Your task to perform on an android device: Go to ESPN.com Image 0: 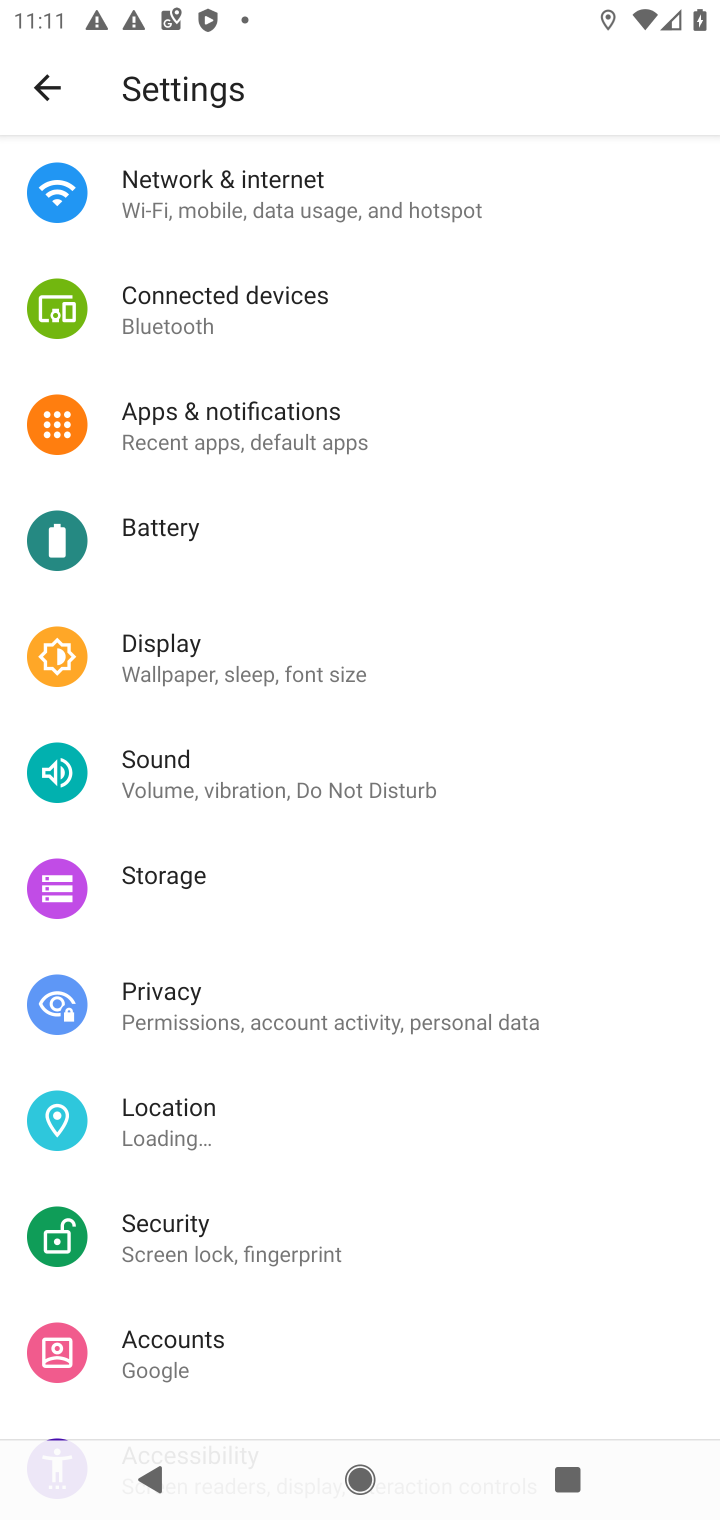
Step 0: press home button
Your task to perform on an android device: Go to ESPN.com Image 1: 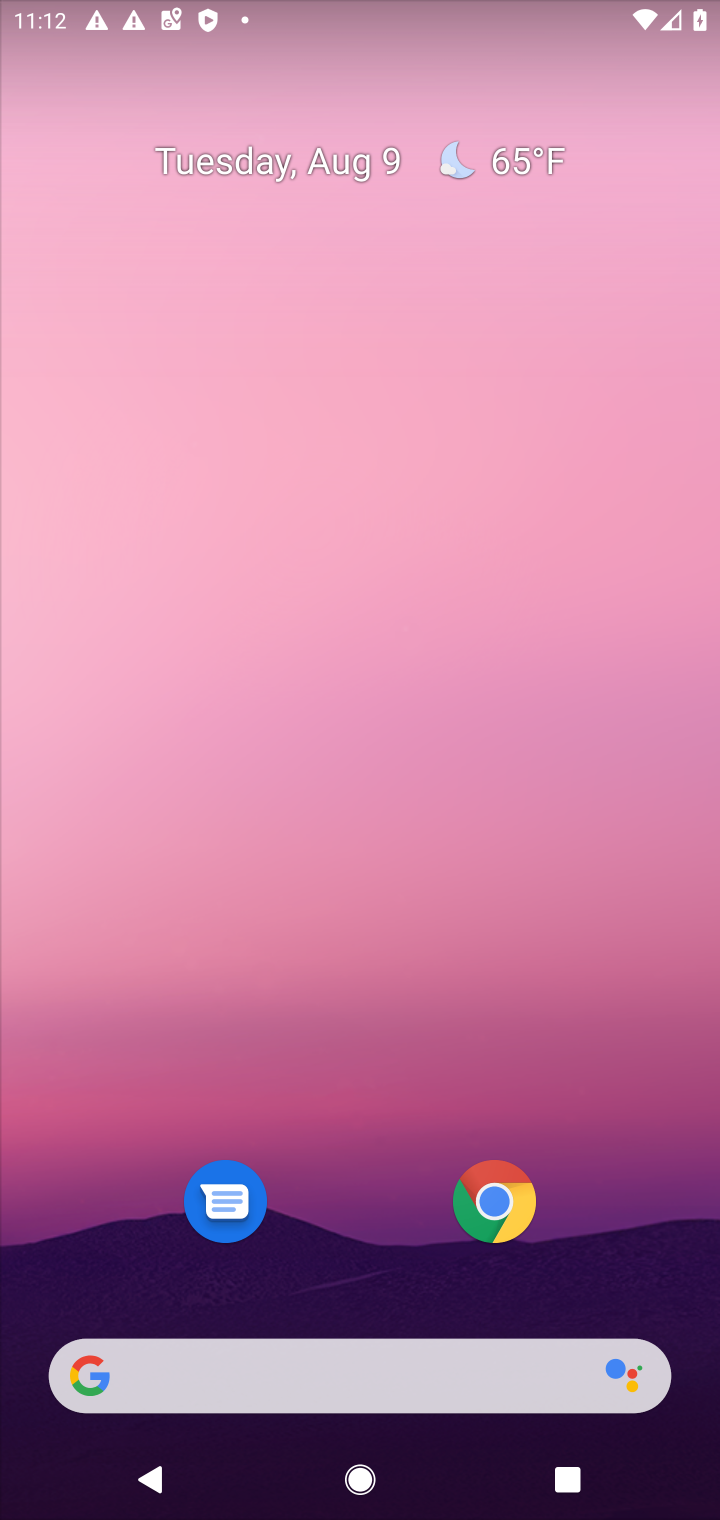
Step 1: drag from (350, 466) to (613, 16)
Your task to perform on an android device: Go to ESPN.com Image 2: 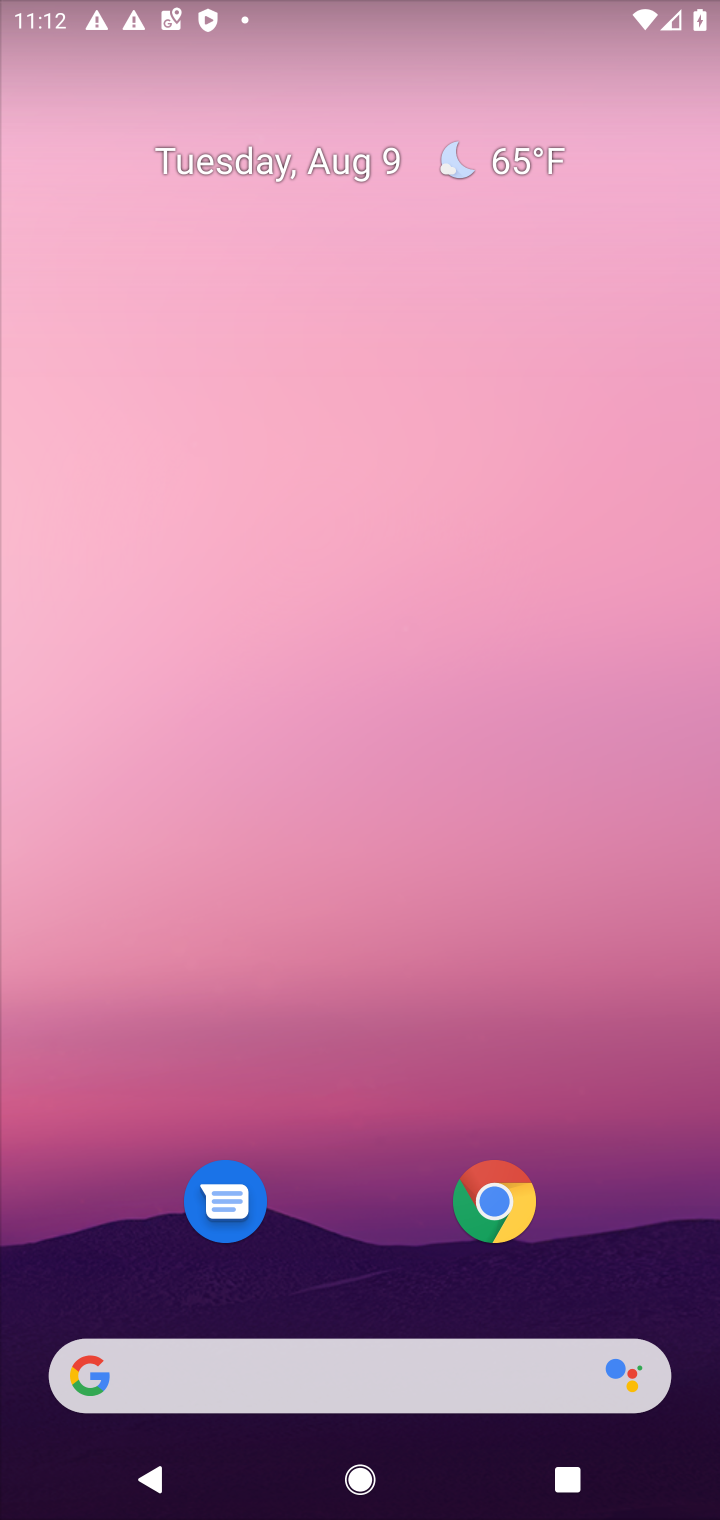
Step 2: drag from (371, 1204) to (360, 39)
Your task to perform on an android device: Go to ESPN.com Image 3: 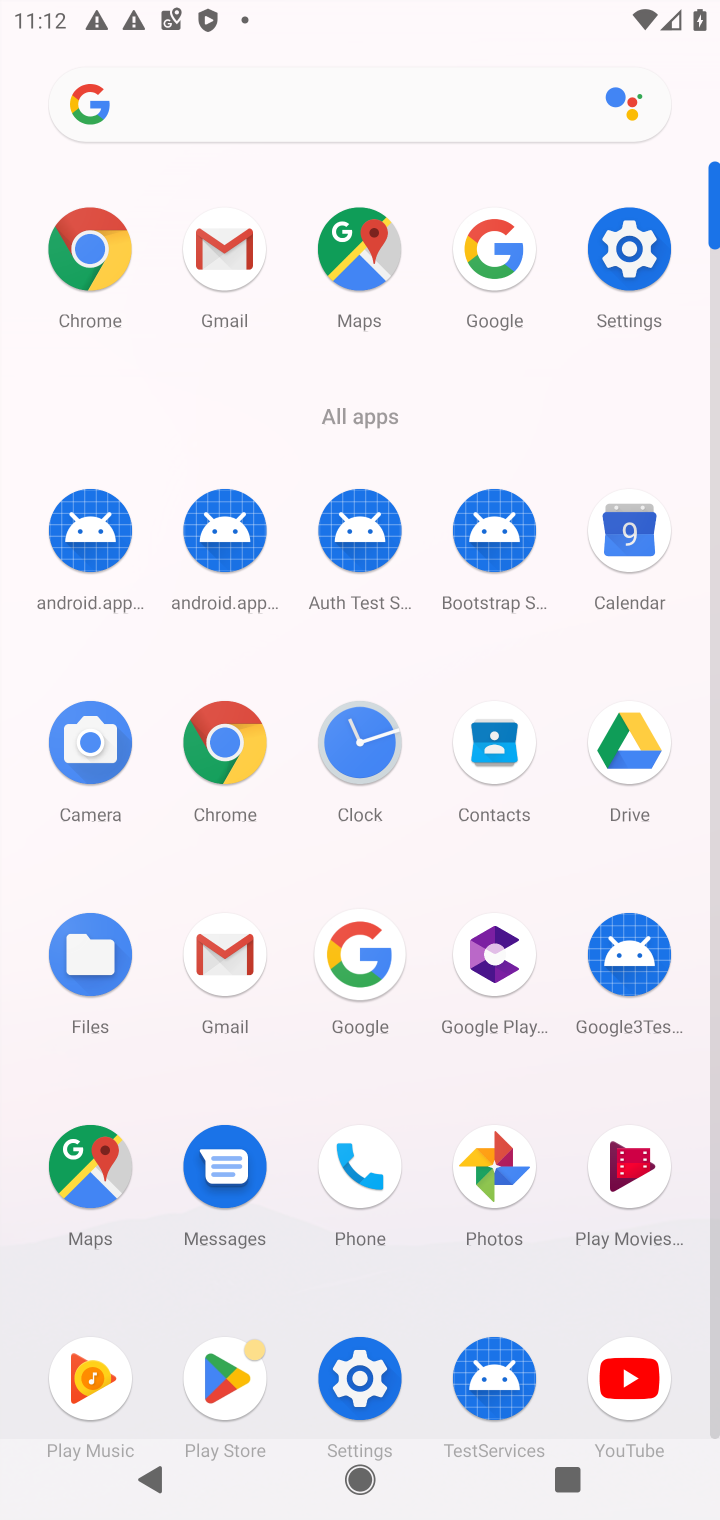
Step 3: click (371, 949)
Your task to perform on an android device: Go to ESPN.com Image 4: 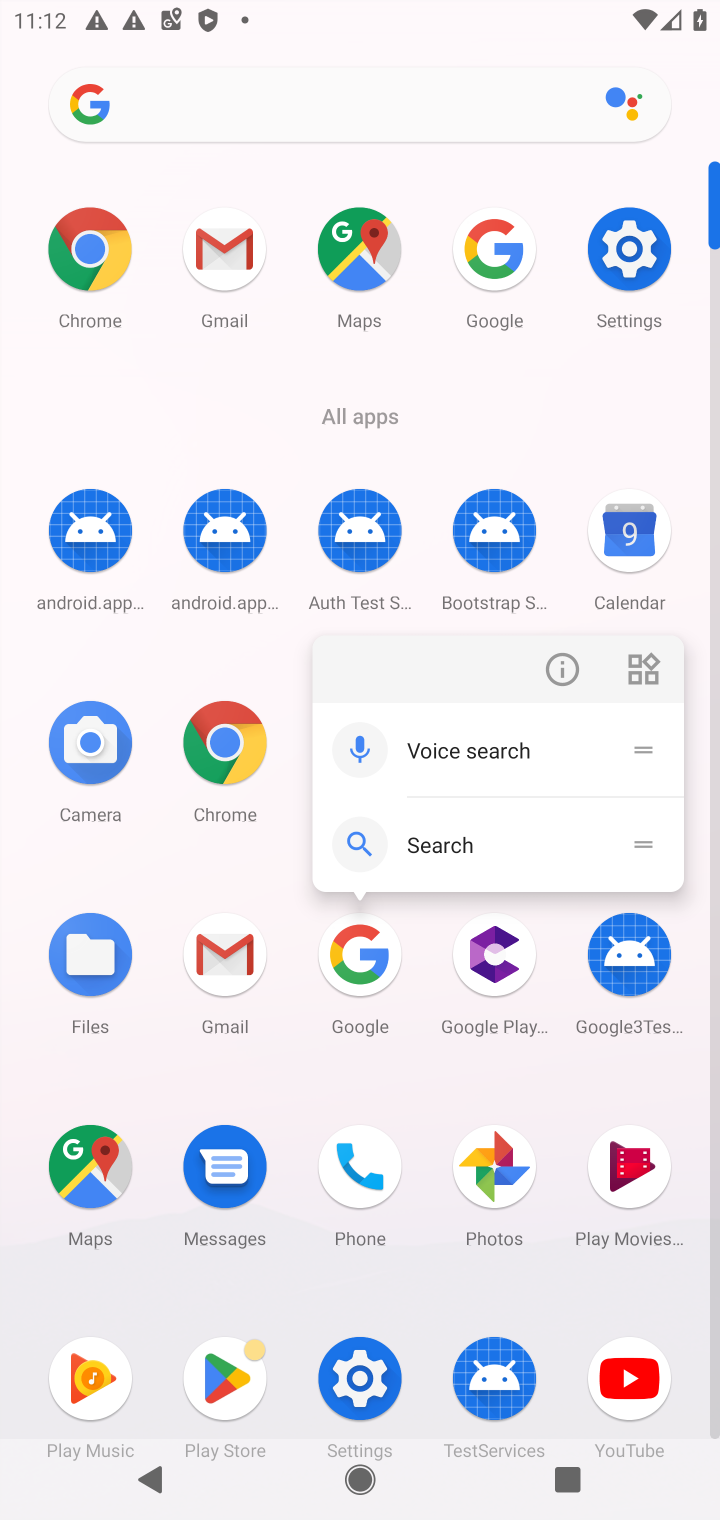
Step 4: click (367, 953)
Your task to perform on an android device: Go to ESPN.com Image 5: 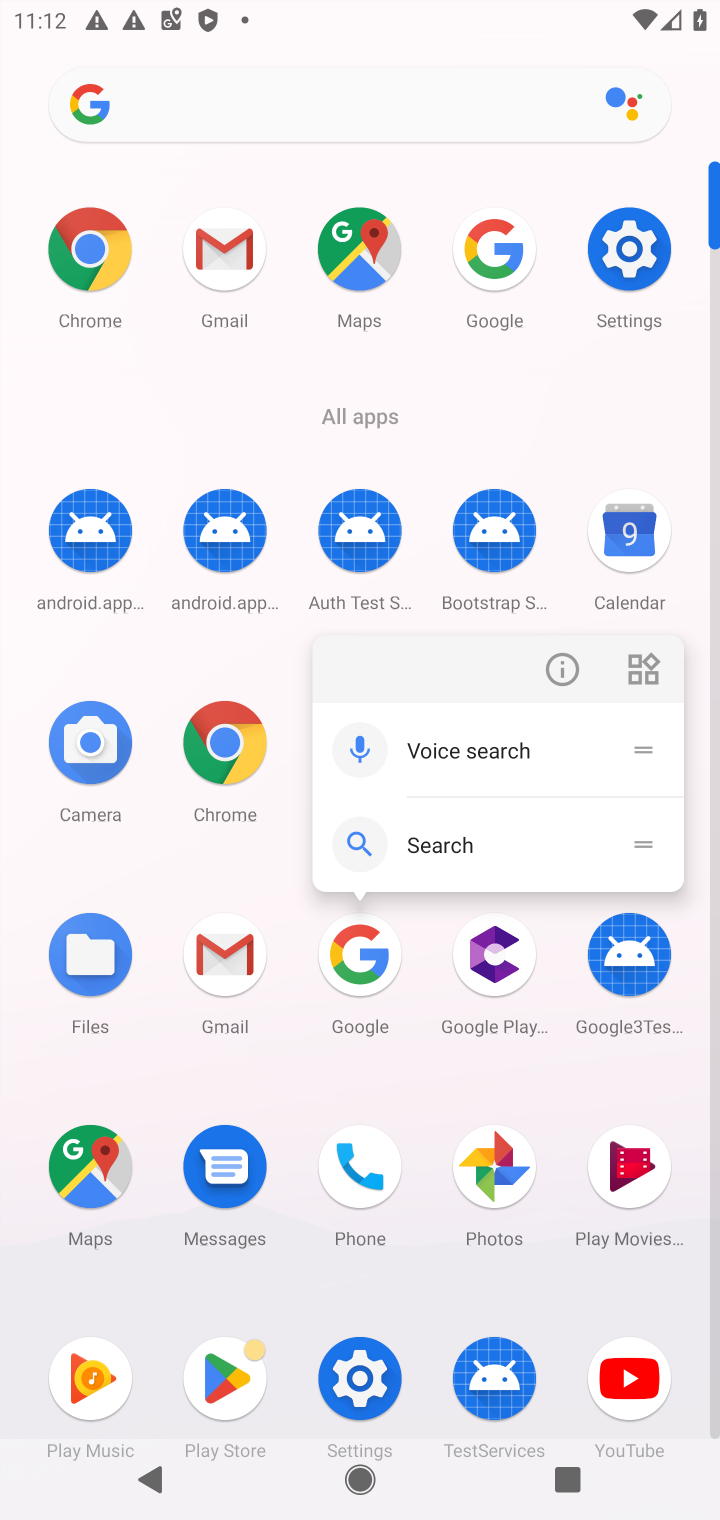
Step 5: click (364, 958)
Your task to perform on an android device: Go to ESPN.com Image 6: 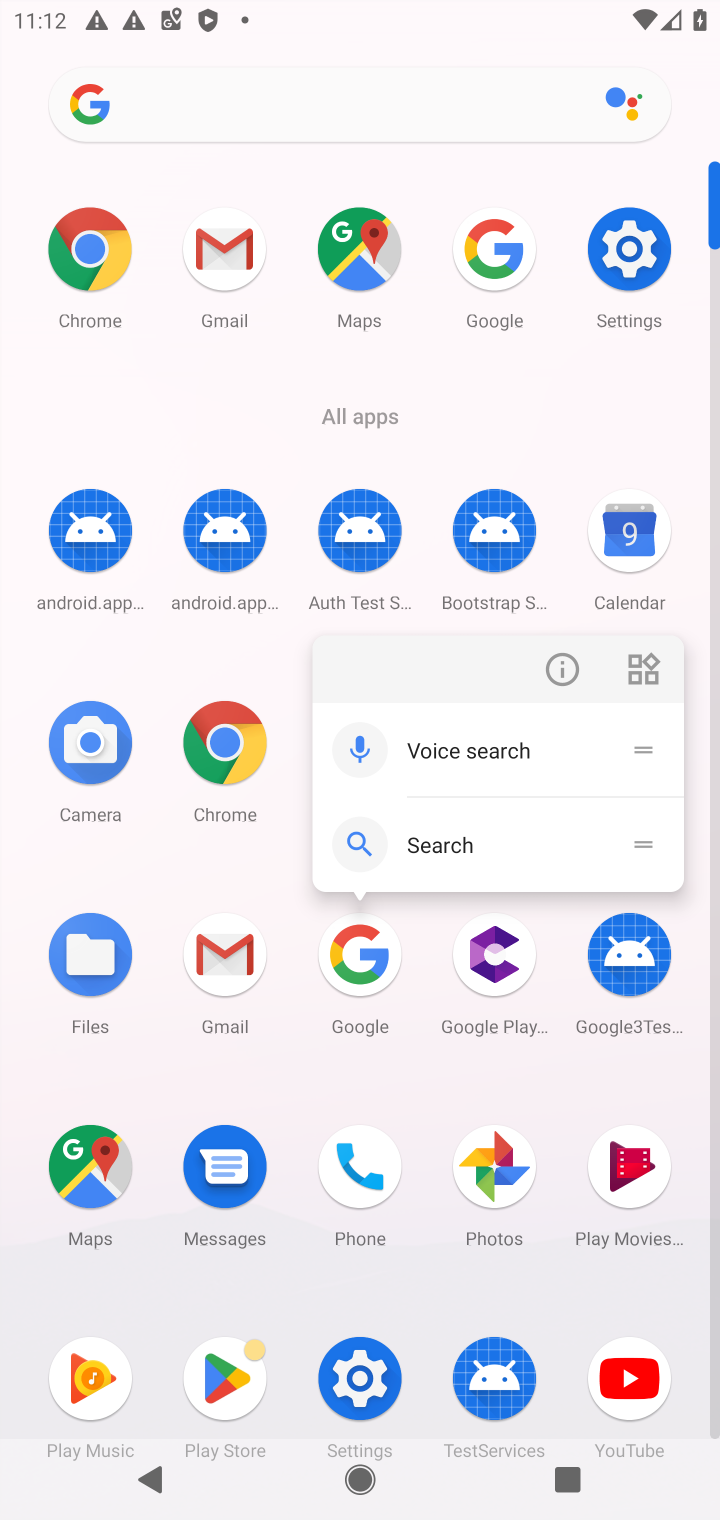
Step 6: click (351, 986)
Your task to perform on an android device: Go to ESPN.com Image 7: 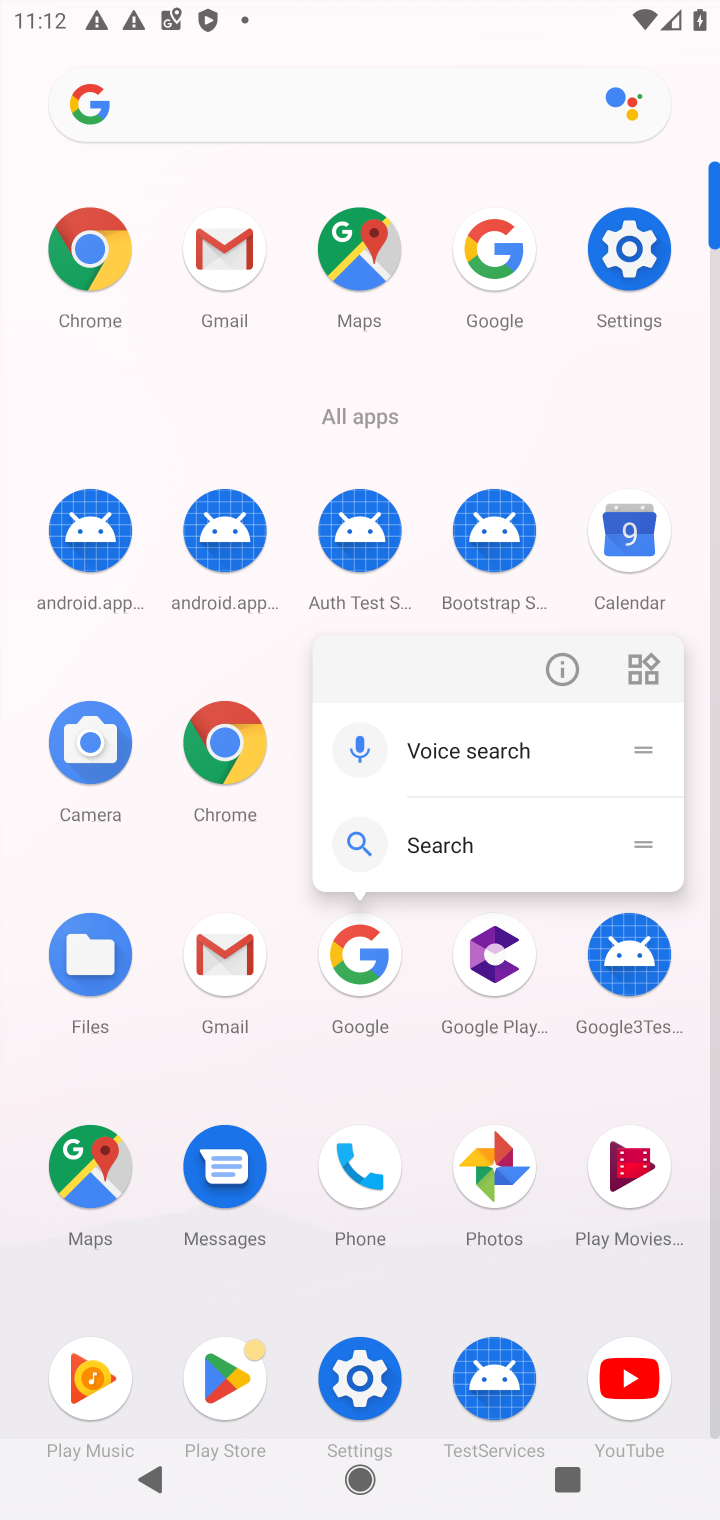
Step 7: click (356, 983)
Your task to perform on an android device: Go to ESPN.com Image 8: 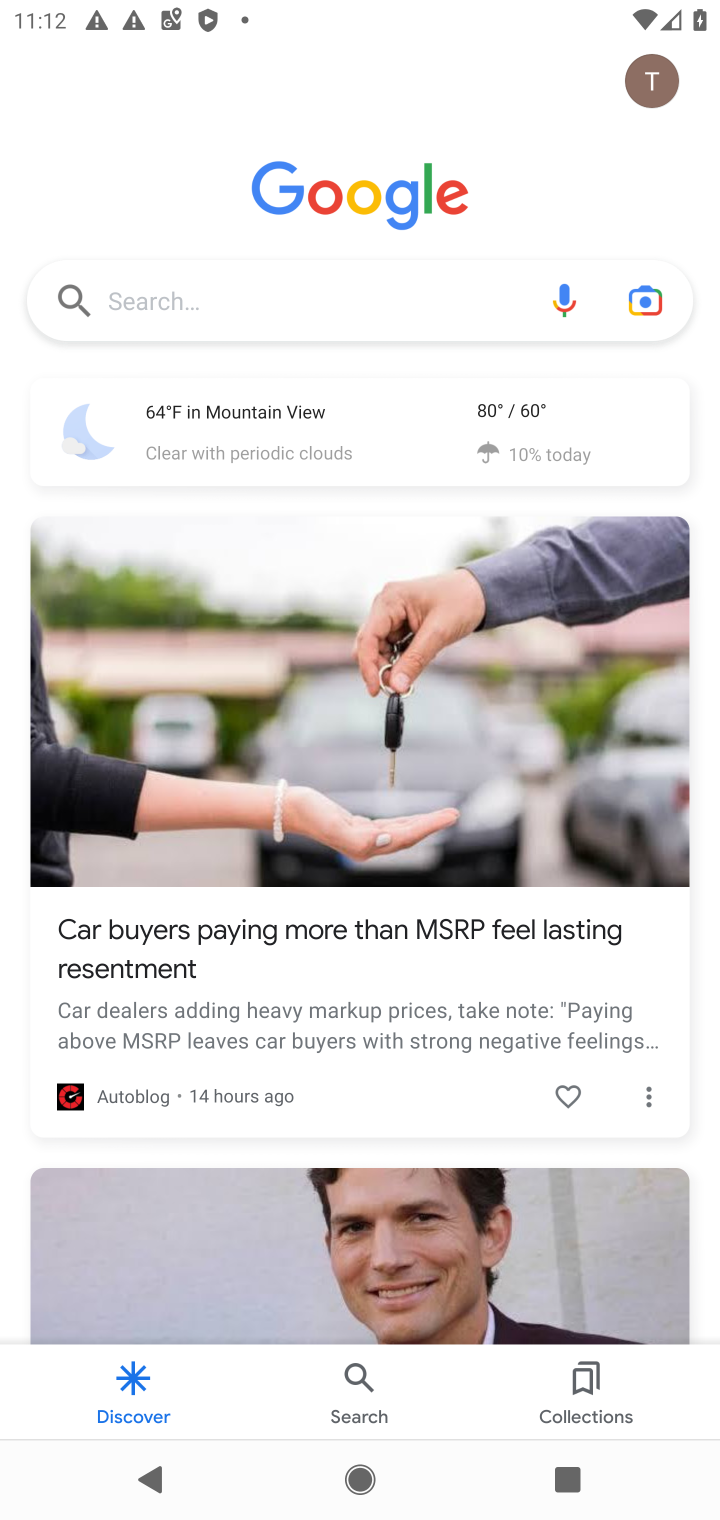
Step 8: click (218, 314)
Your task to perform on an android device: Go to ESPN.com Image 9: 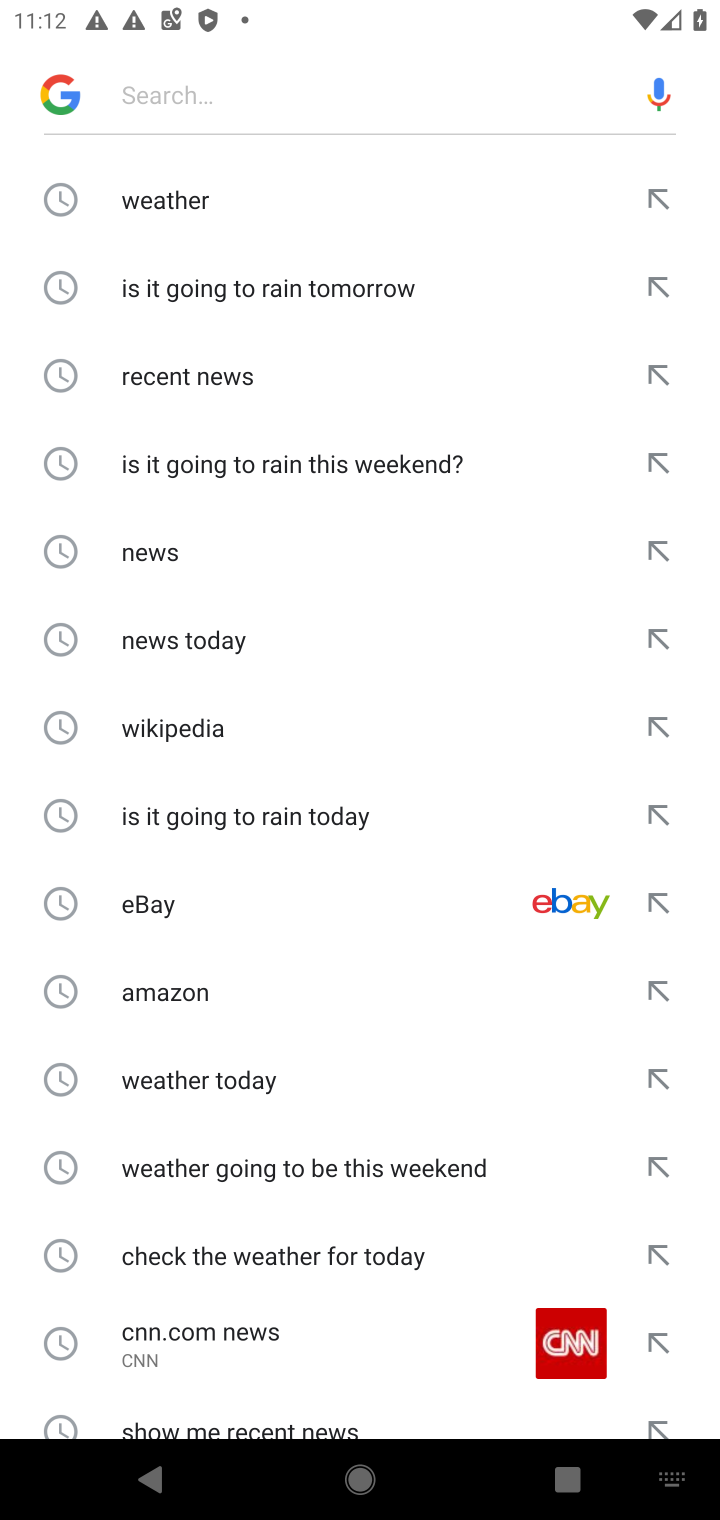
Step 9: type "ESPN.com"
Your task to perform on an android device: Go to ESPN.com Image 10: 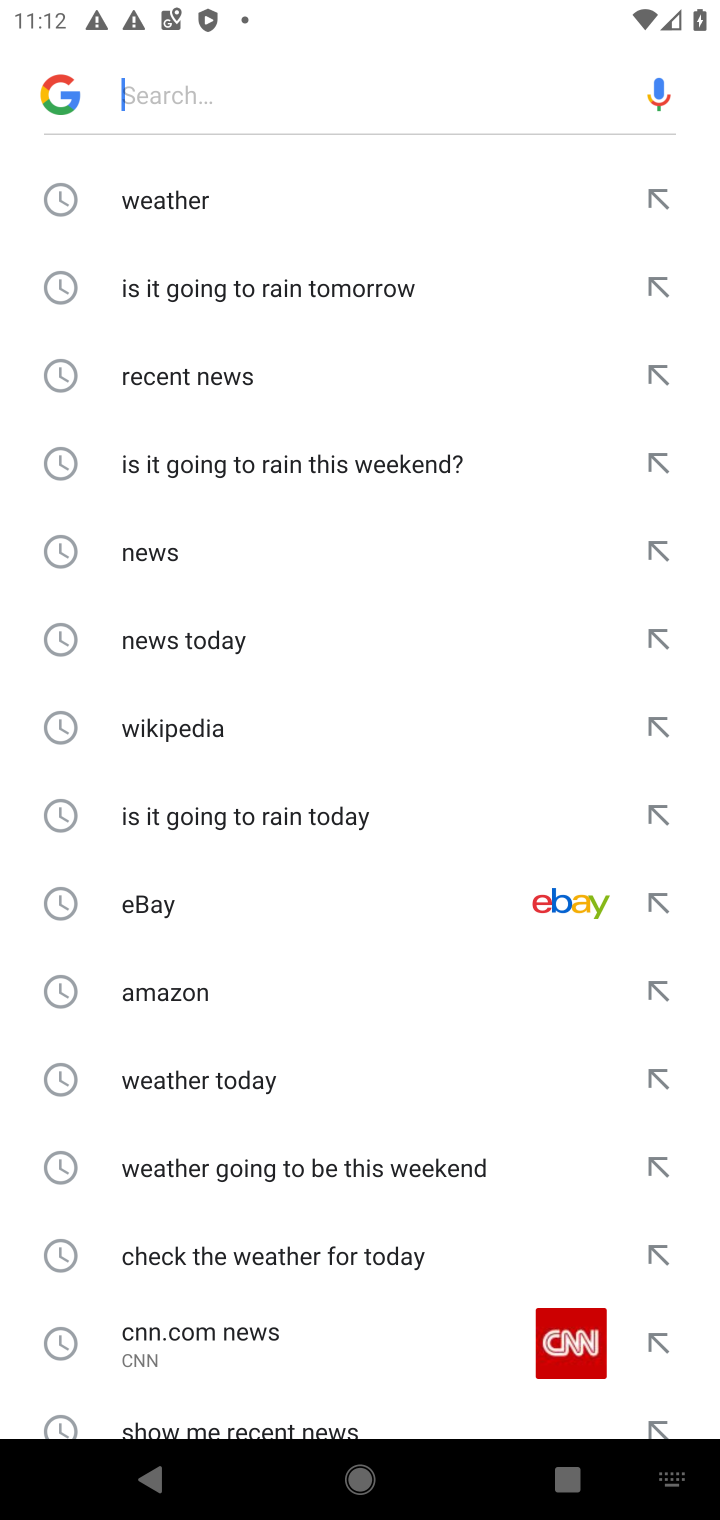
Step 10: click (213, 84)
Your task to perform on an android device: Go to ESPN.com Image 11: 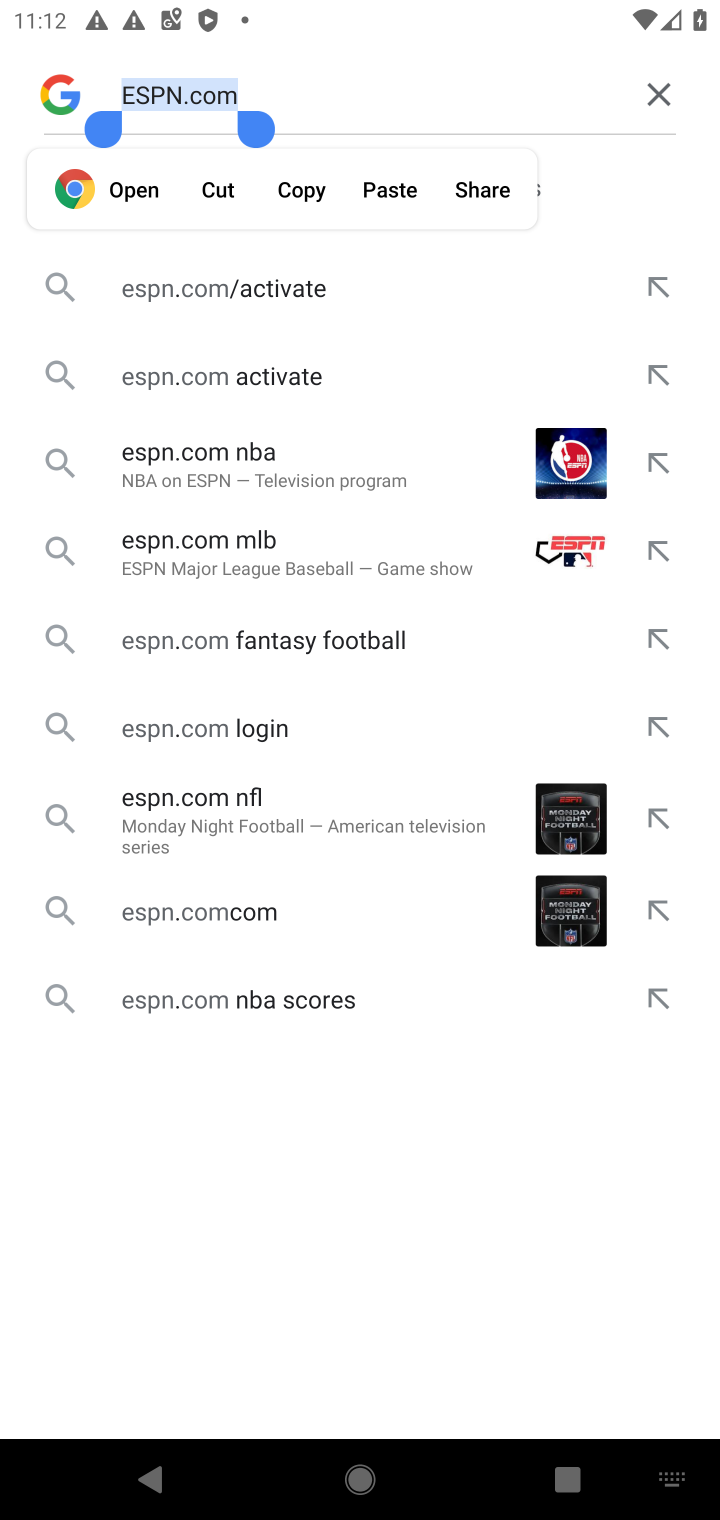
Step 11: press enter
Your task to perform on an android device: Go to ESPN.com Image 12: 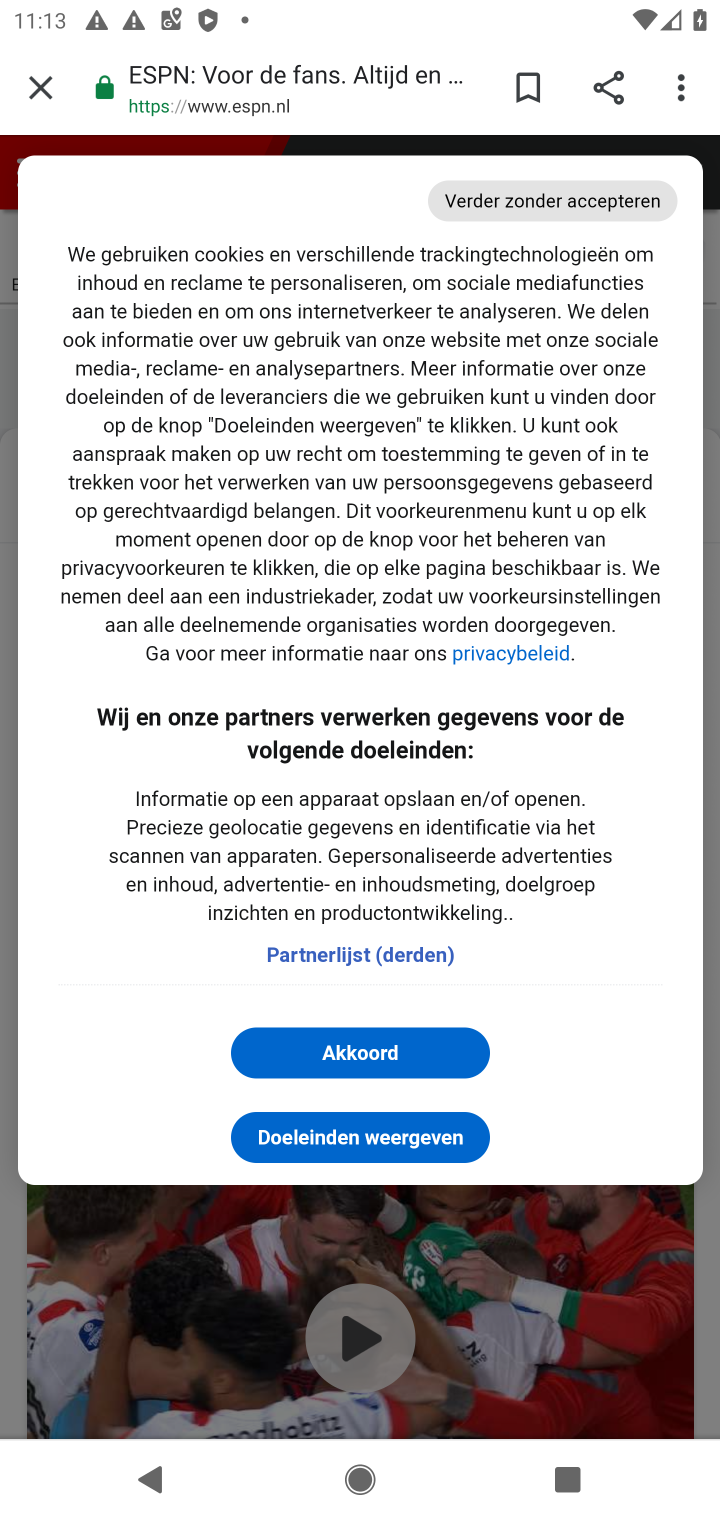
Step 12: click (416, 1046)
Your task to perform on an android device: Go to ESPN.com Image 13: 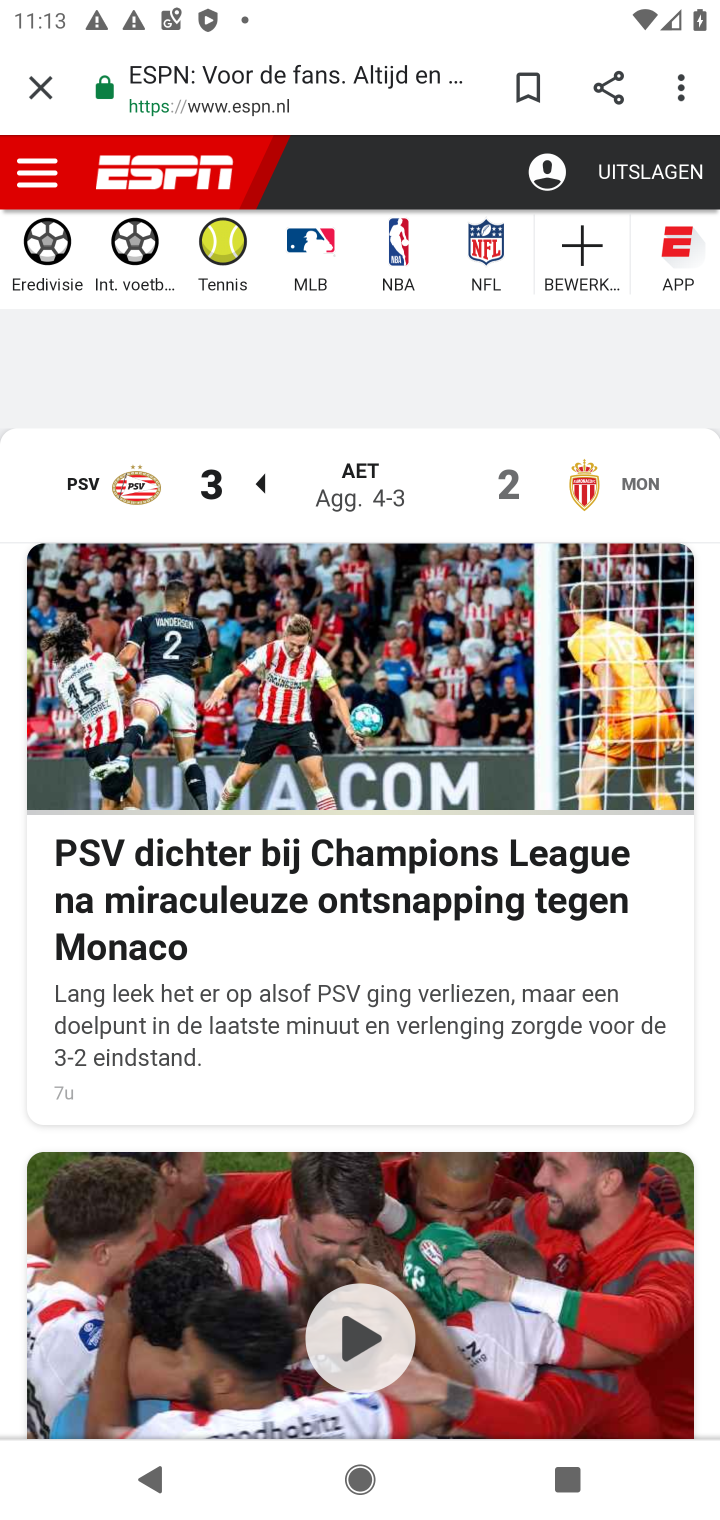
Step 13: task complete